Your task to perform on an android device: open a bookmark in the chrome app Image 0: 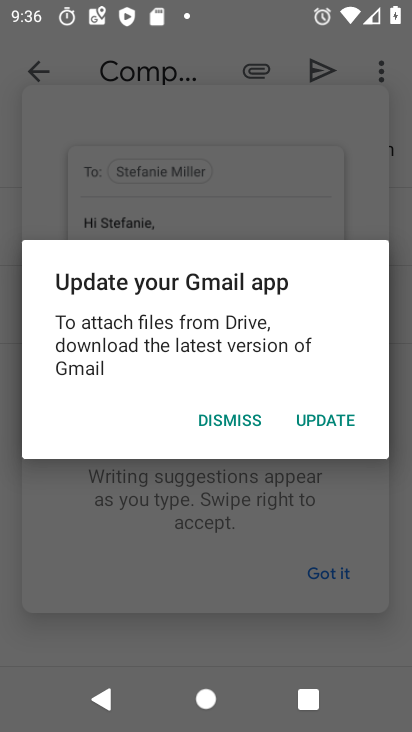
Step 0: press home button
Your task to perform on an android device: open a bookmark in the chrome app Image 1: 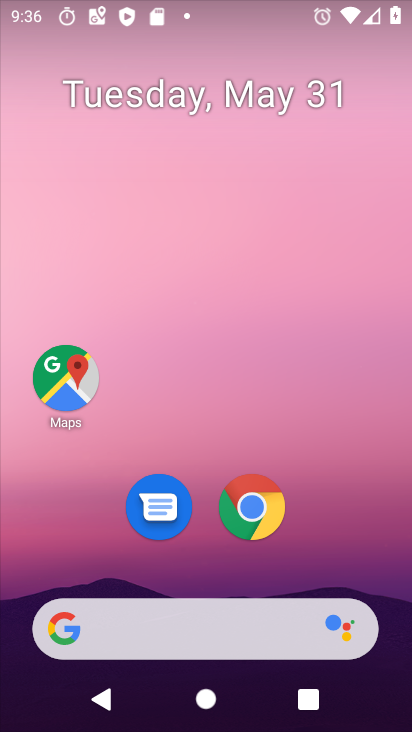
Step 1: click (261, 508)
Your task to perform on an android device: open a bookmark in the chrome app Image 2: 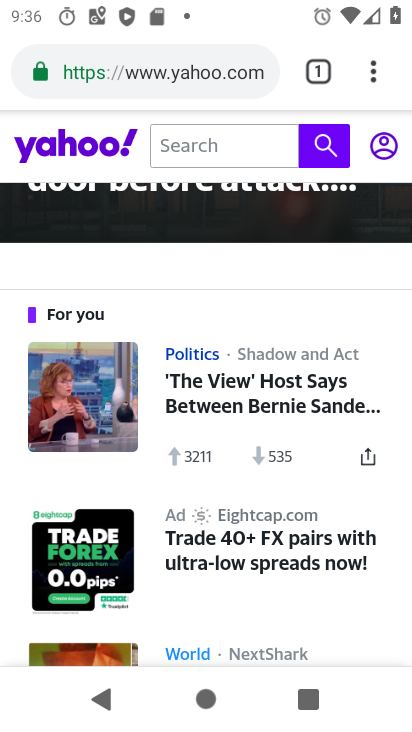
Step 2: click (375, 71)
Your task to perform on an android device: open a bookmark in the chrome app Image 3: 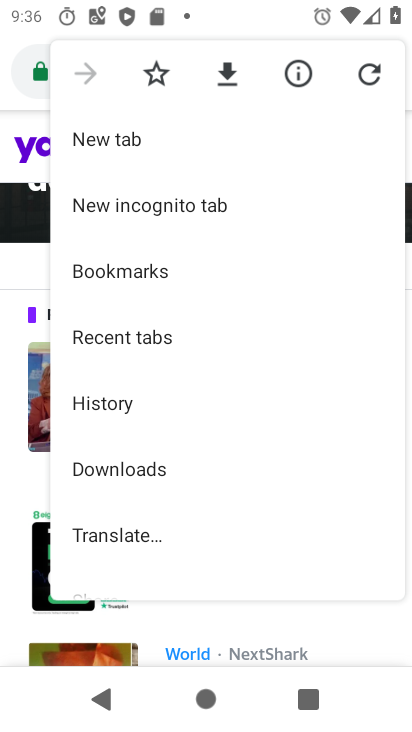
Step 3: click (161, 276)
Your task to perform on an android device: open a bookmark in the chrome app Image 4: 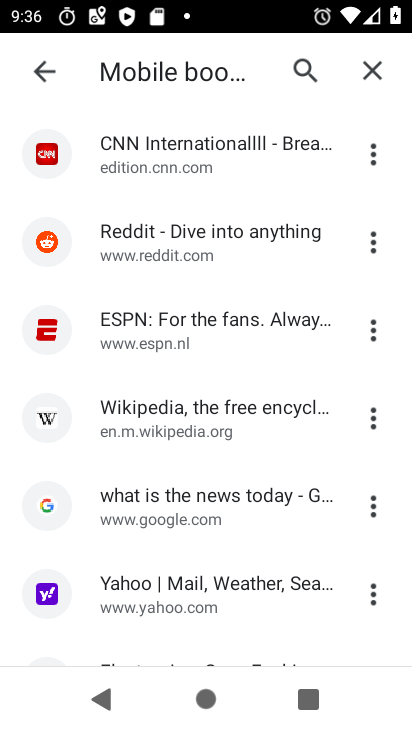
Step 4: click (161, 319)
Your task to perform on an android device: open a bookmark in the chrome app Image 5: 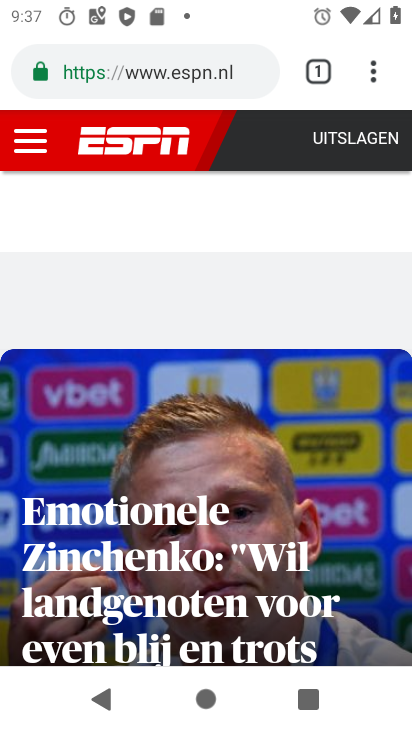
Step 5: task complete